Your task to perform on an android device: Open the web browser Image 0: 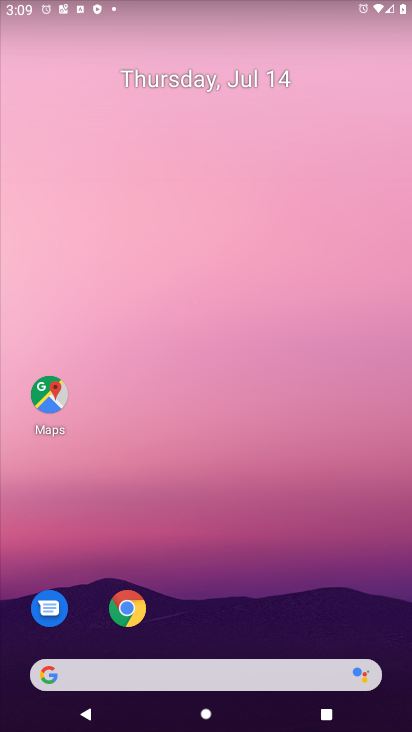
Step 0: click (130, 612)
Your task to perform on an android device: Open the web browser Image 1: 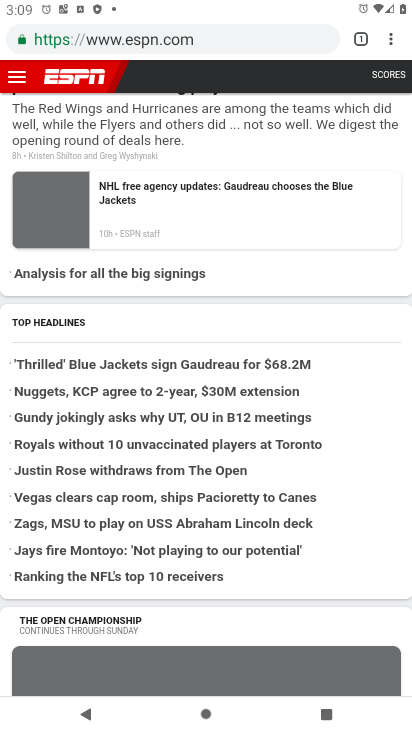
Step 1: task complete